Your task to perform on an android device: What is the recent news? Image 0: 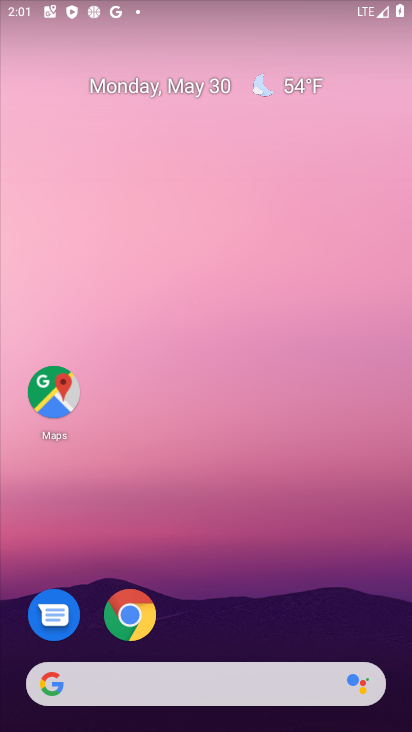
Step 0: drag from (6, 237) to (396, 316)
Your task to perform on an android device: What is the recent news? Image 1: 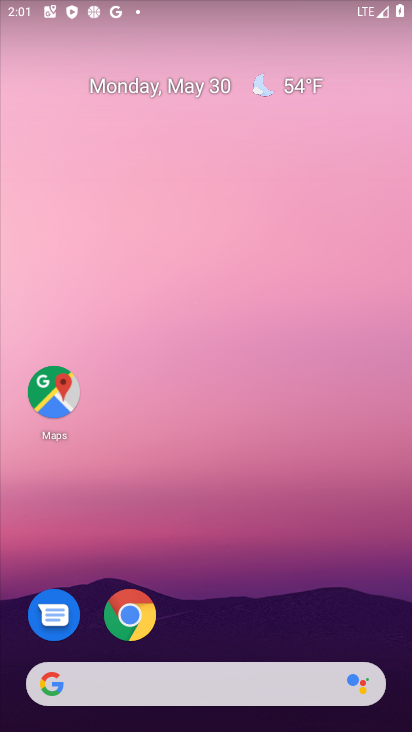
Step 1: task complete